Your task to perform on an android device: Show the shopping cart on ebay.com. Search for "razer huntsman" on ebay.com, select the first entry, and add it to the cart. Image 0: 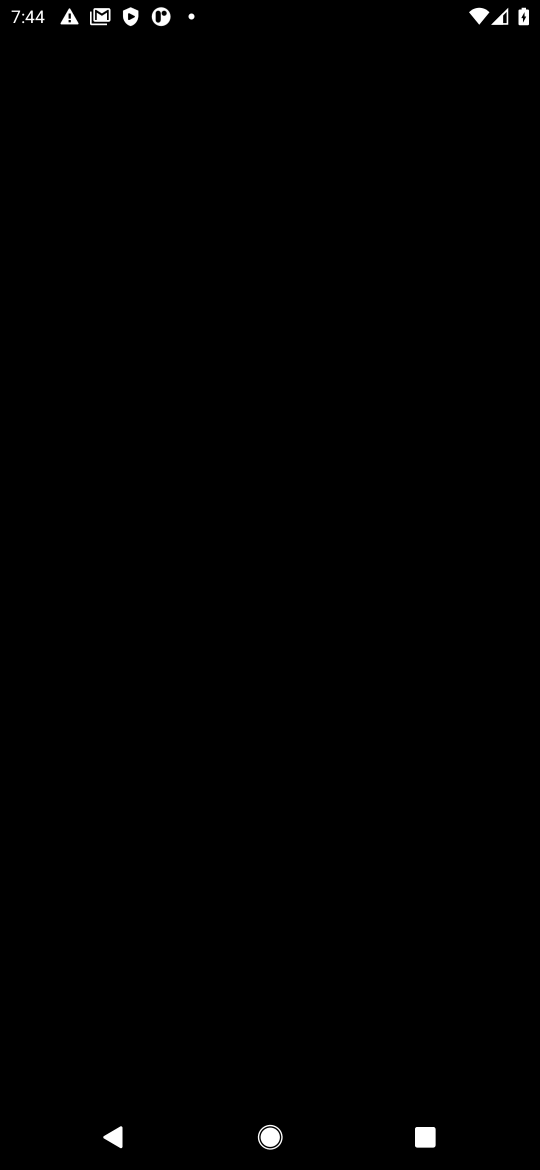
Step 0: press home button
Your task to perform on an android device: Show the shopping cart on ebay.com. Search for "razer huntsman" on ebay.com, select the first entry, and add it to the cart. Image 1: 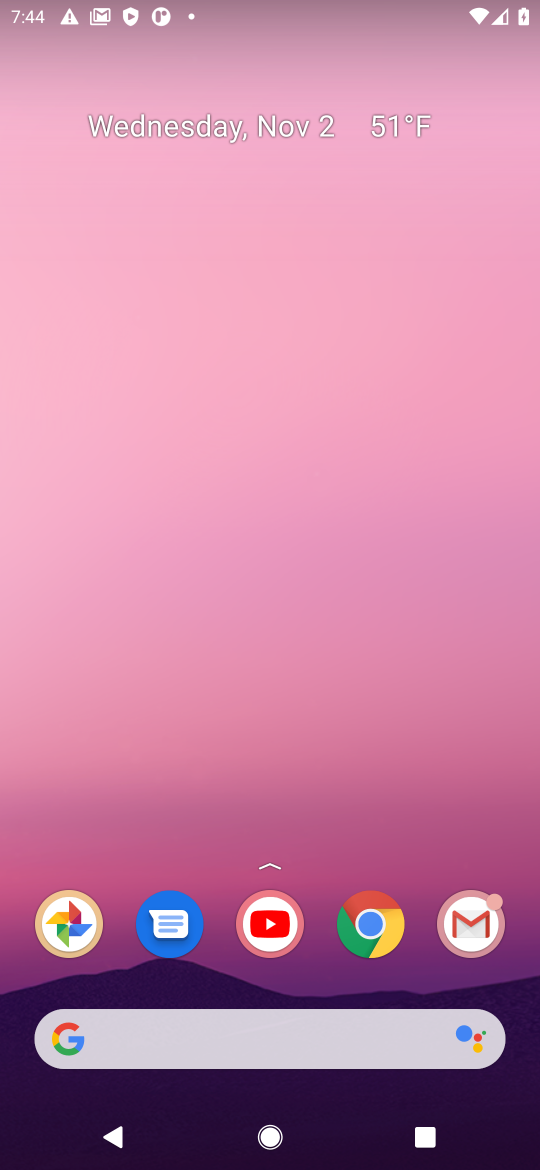
Step 1: click (390, 936)
Your task to perform on an android device: Show the shopping cart on ebay.com. Search for "razer huntsman" on ebay.com, select the first entry, and add it to the cart. Image 2: 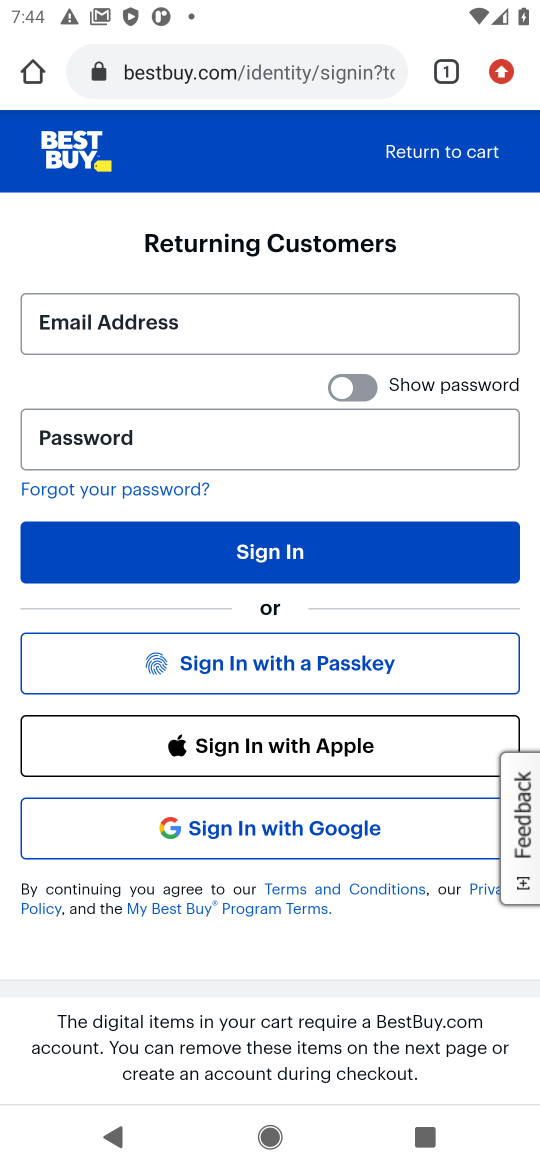
Step 2: click (124, 75)
Your task to perform on an android device: Show the shopping cart on ebay.com. Search for "razer huntsman" on ebay.com, select the first entry, and add it to the cart. Image 3: 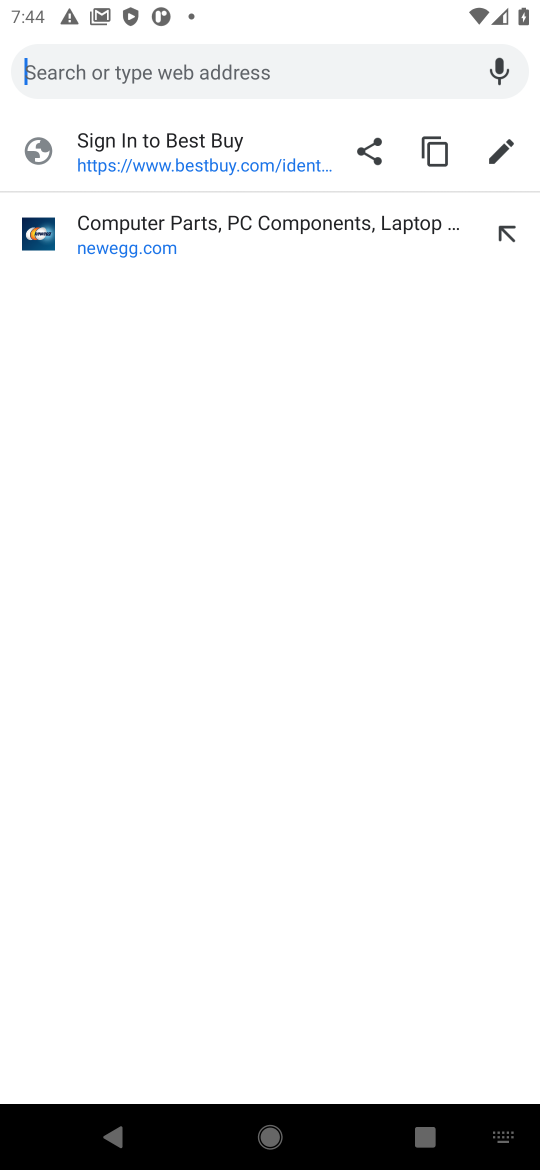
Step 3: type "ebay"
Your task to perform on an android device: Show the shopping cart on ebay.com. Search for "razer huntsman" on ebay.com, select the first entry, and add it to the cart. Image 4: 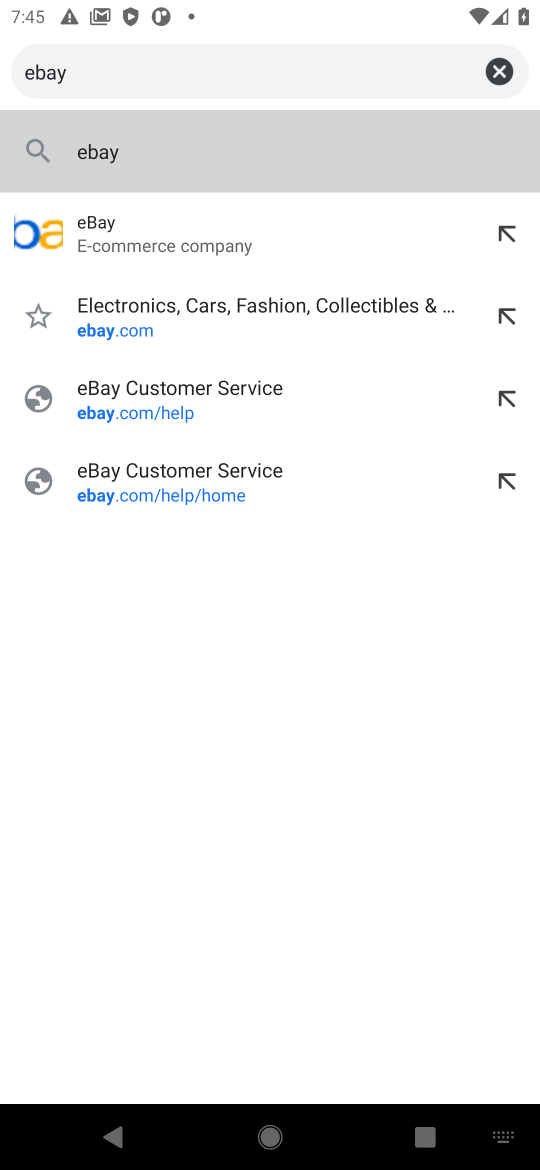
Step 4: type ""
Your task to perform on an android device: Show the shopping cart on ebay.com. Search for "razer huntsman" on ebay.com, select the first entry, and add it to the cart. Image 5: 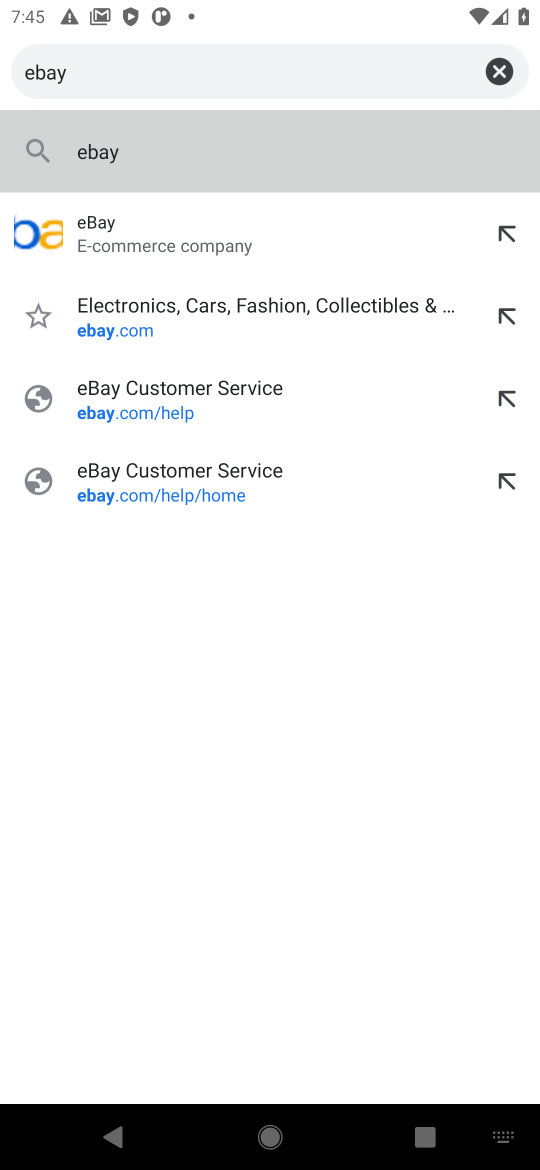
Step 5: click (119, 231)
Your task to perform on an android device: Show the shopping cart on ebay.com. Search for "razer huntsman" on ebay.com, select the first entry, and add it to the cart. Image 6: 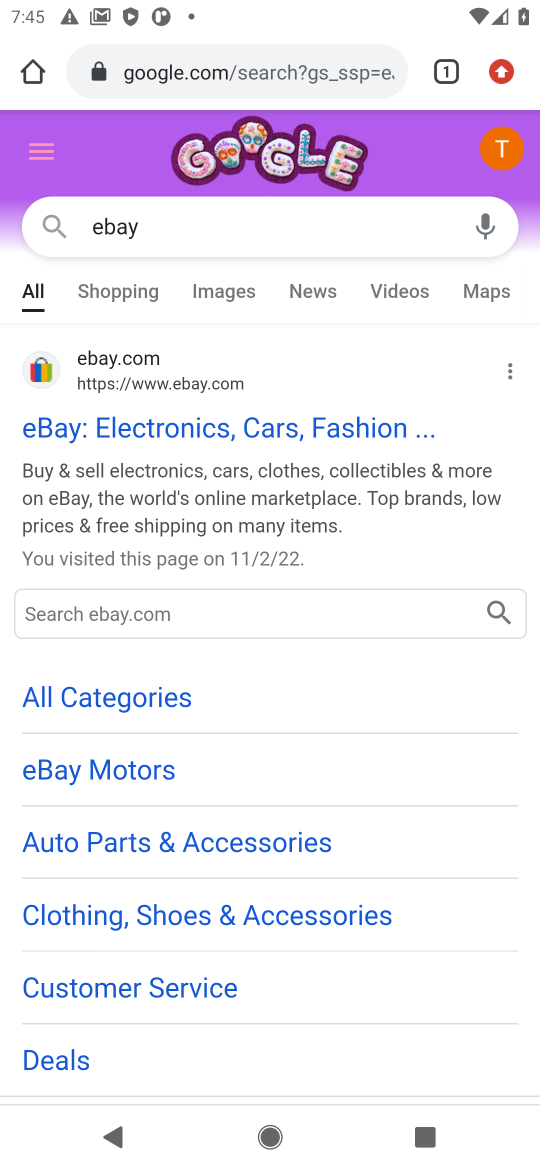
Step 6: click (201, 432)
Your task to perform on an android device: Show the shopping cart on ebay.com. Search for "razer huntsman" on ebay.com, select the first entry, and add it to the cart. Image 7: 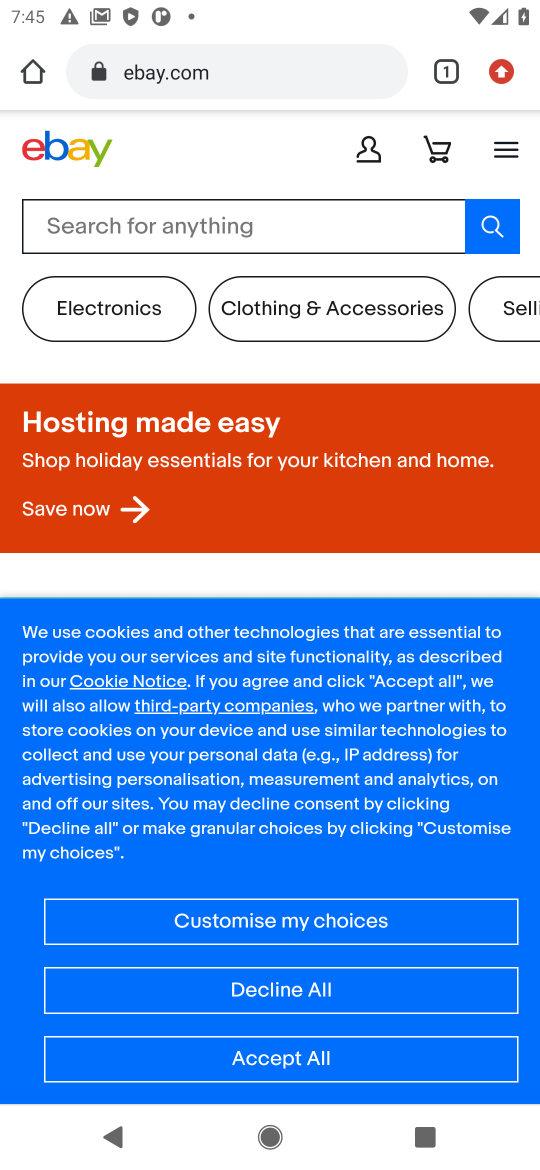
Step 7: click (337, 227)
Your task to perform on an android device: Show the shopping cart on ebay.com. Search for "razer huntsman" on ebay.com, select the first entry, and add it to the cart. Image 8: 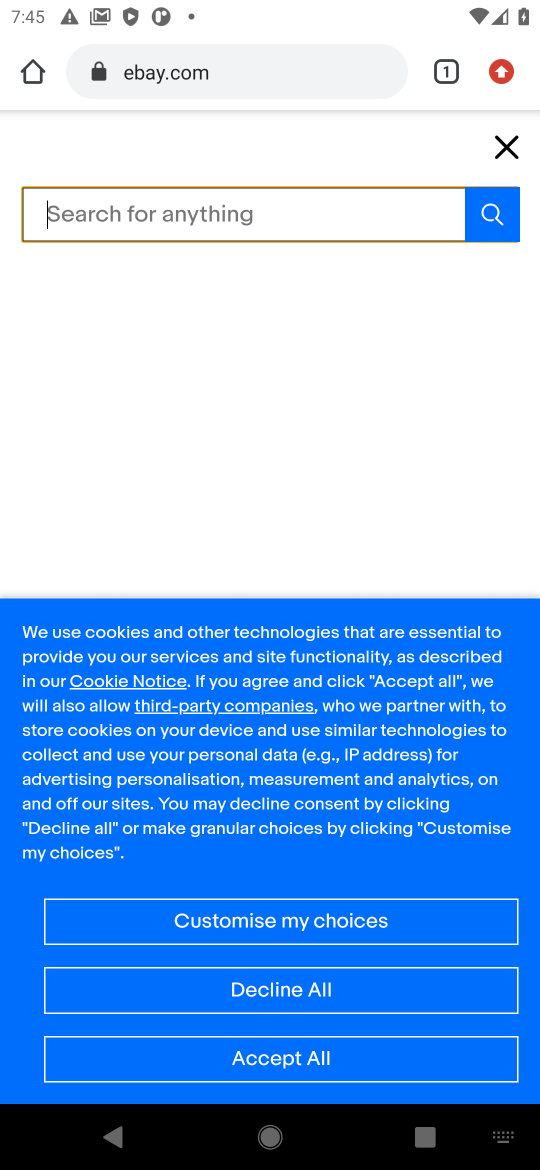
Step 8: click (279, 1054)
Your task to perform on an android device: Show the shopping cart on ebay.com. Search for "razer huntsman" on ebay.com, select the first entry, and add it to the cart. Image 9: 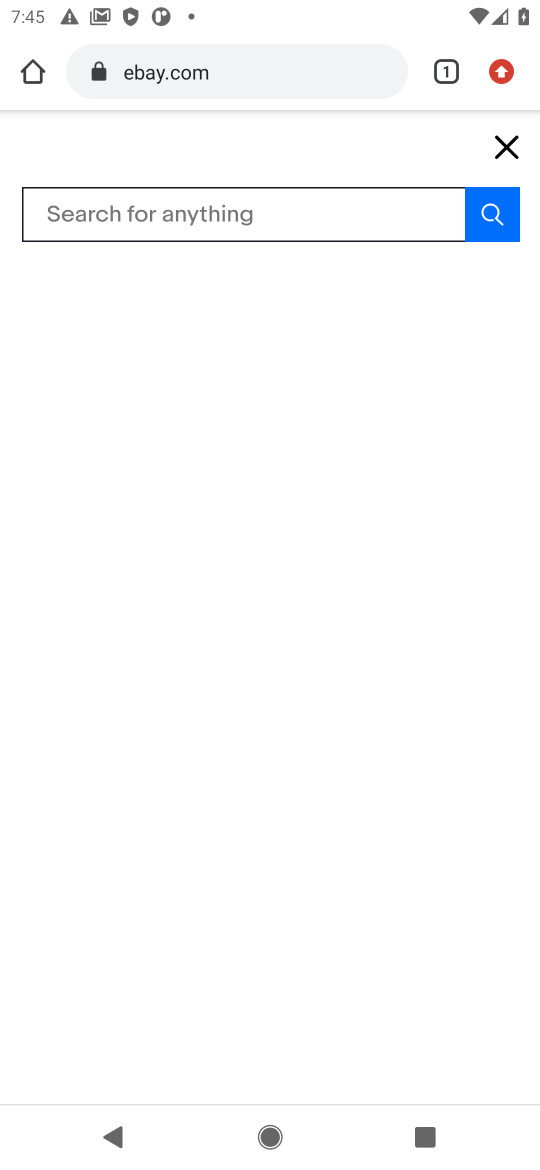
Step 9: click (355, 231)
Your task to perform on an android device: Show the shopping cart on ebay.com. Search for "razer huntsman" on ebay.com, select the first entry, and add it to the cart. Image 10: 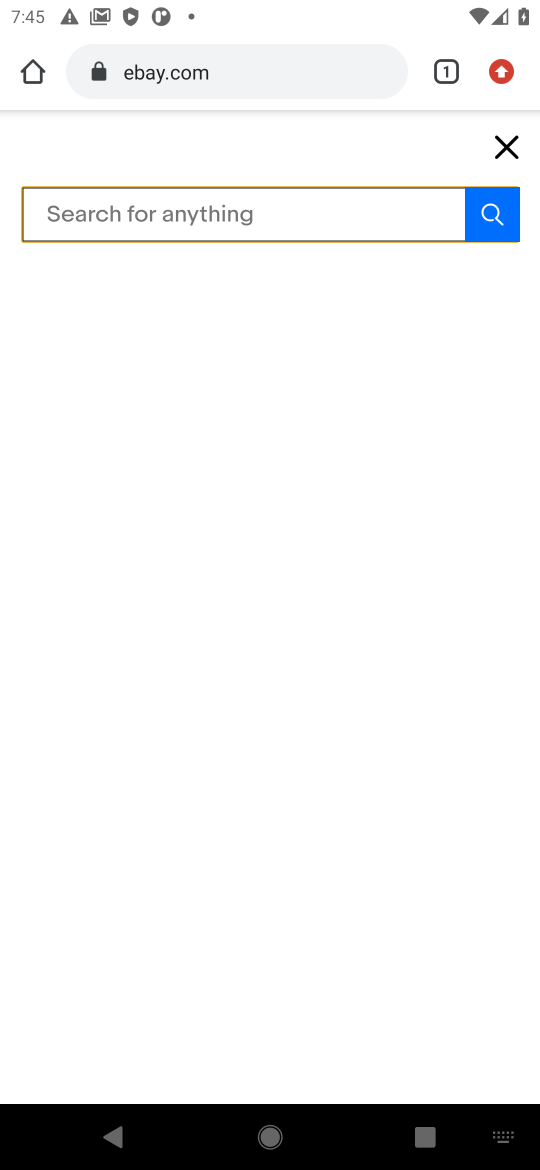
Step 10: type "razer huntsman"
Your task to perform on an android device: Show the shopping cart on ebay.com. Search for "razer huntsman" on ebay.com, select the first entry, and add it to the cart. Image 11: 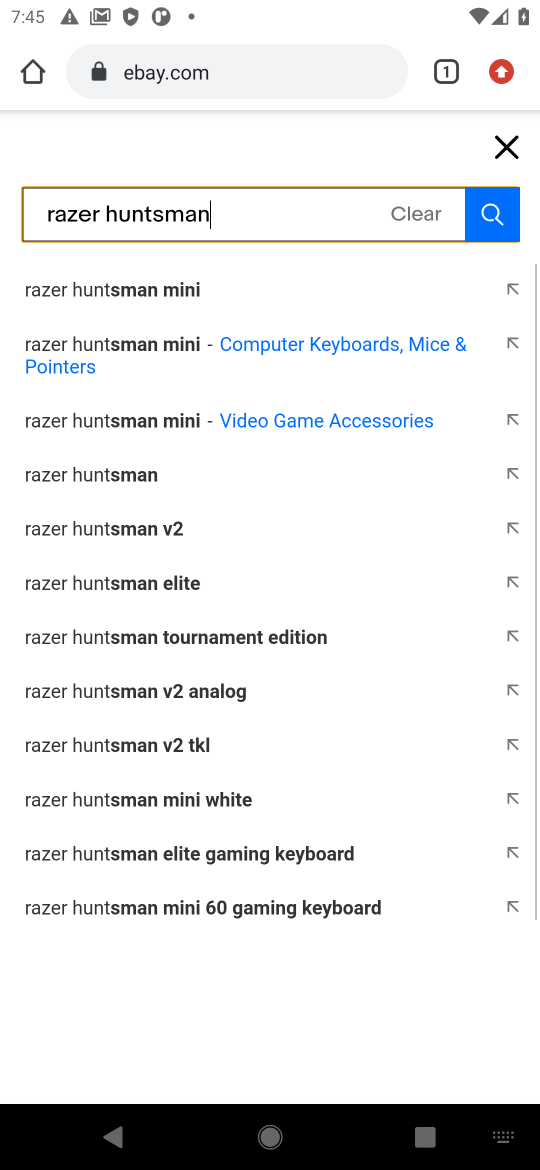
Step 11: type ""
Your task to perform on an android device: Show the shopping cart on ebay.com. Search for "razer huntsman" on ebay.com, select the first entry, and add it to the cart. Image 12: 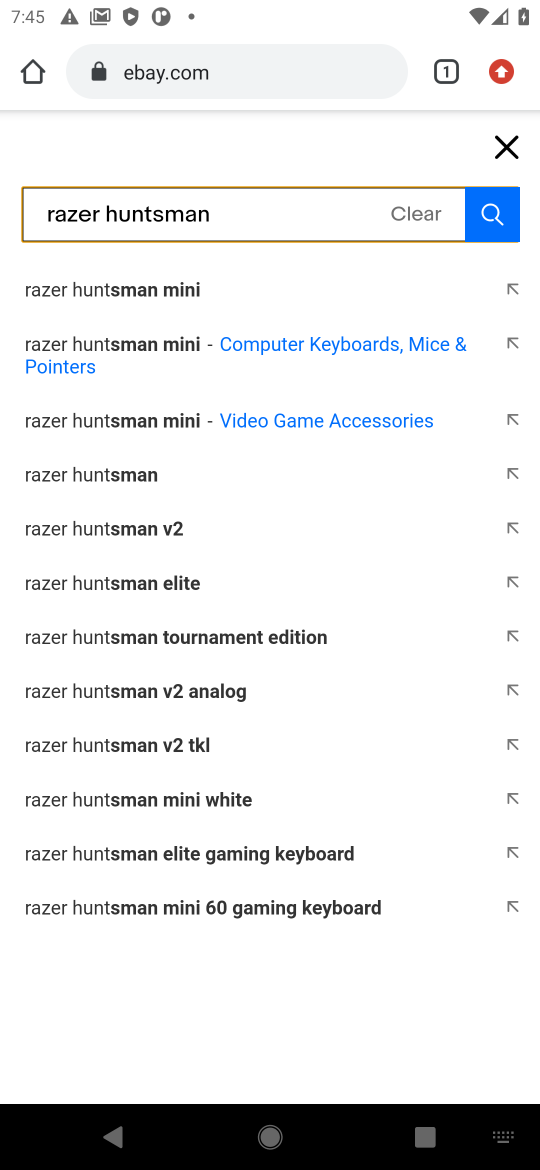
Step 12: click (129, 480)
Your task to perform on an android device: Show the shopping cart on ebay.com. Search for "razer huntsman" on ebay.com, select the first entry, and add it to the cart. Image 13: 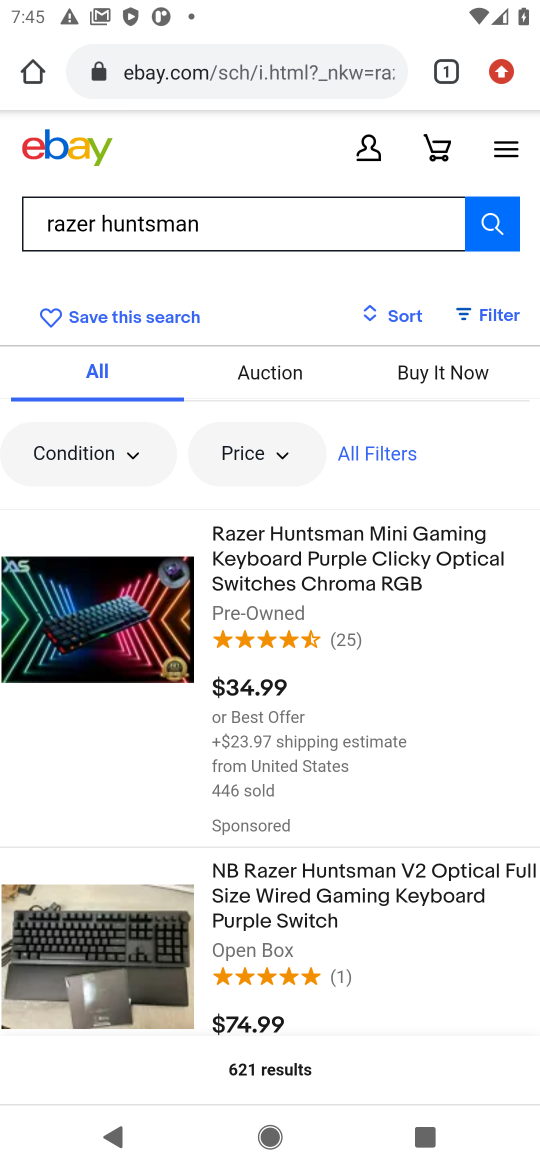
Step 13: click (321, 570)
Your task to perform on an android device: Show the shopping cart on ebay.com. Search for "razer huntsman" on ebay.com, select the first entry, and add it to the cart. Image 14: 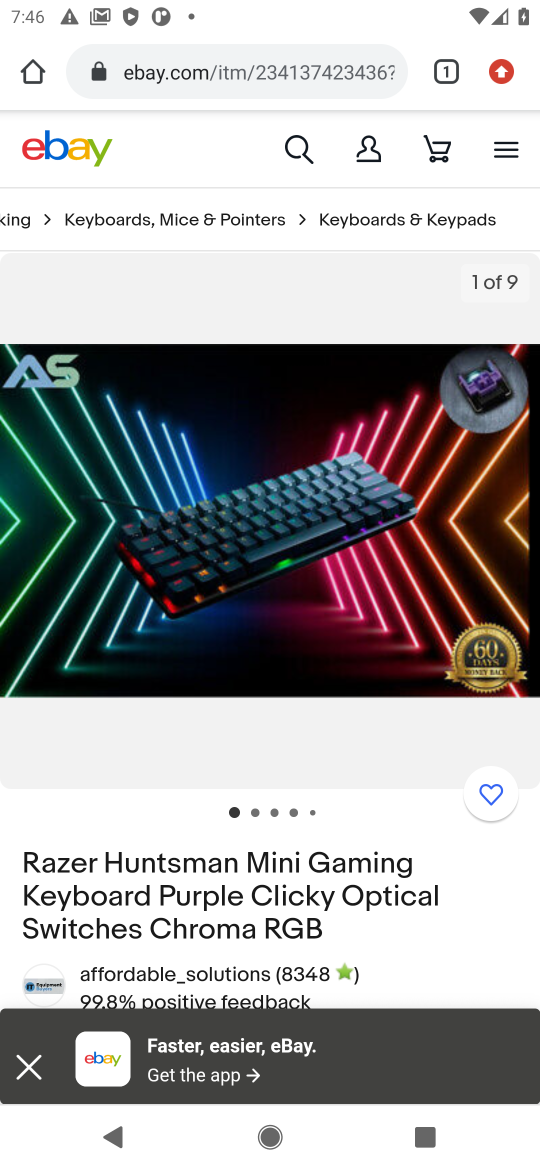
Step 14: click (20, 1073)
Your task to perform on an android device: Show the shopping cart on ebay.com. Search for "razer huntsman" on ebay.com, select the first entry, and add it to the cart. Image 15: 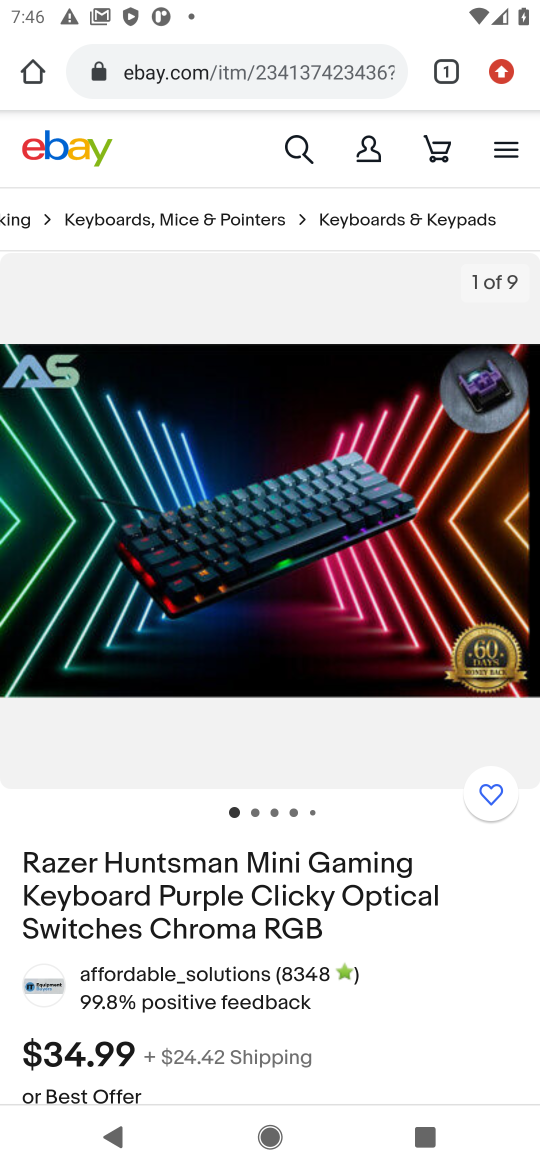
Step 15: drag from (138, 913) to (205, 257)
Your task to perform on an android device: Show the shopping cart on ebay.com. Search for "razer huntsman" on ebay.com, select the first entry, and add it to the cart. Image 16: 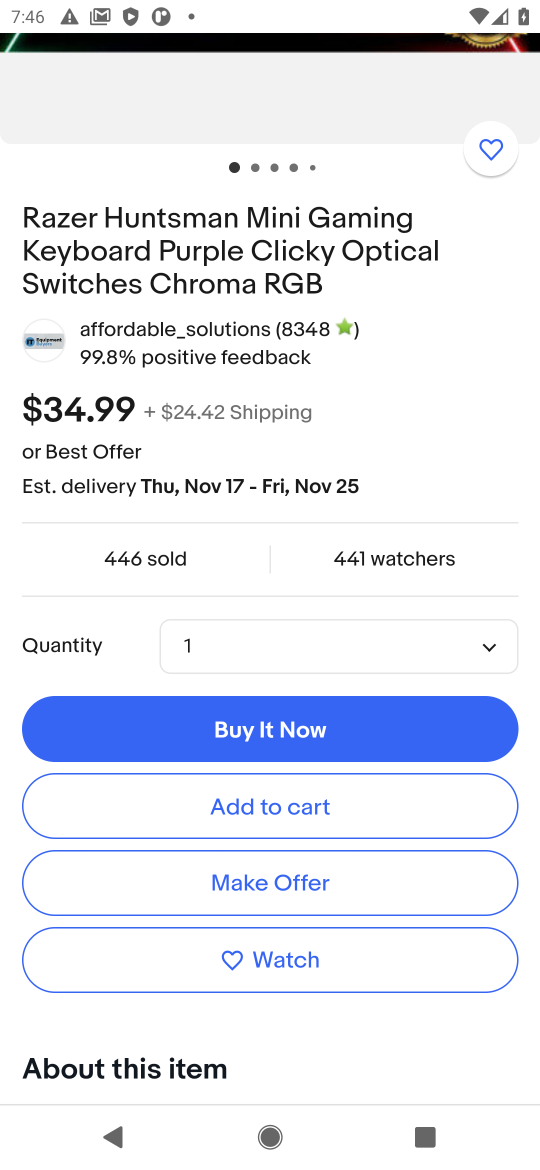
Step 16: click (230, 796)
Your task to perform on an android device: Show the shopping cart on ebay.com. Search for "razer huntsman" on ebay.com, select the first entry, and add it to the cart. Image 17: 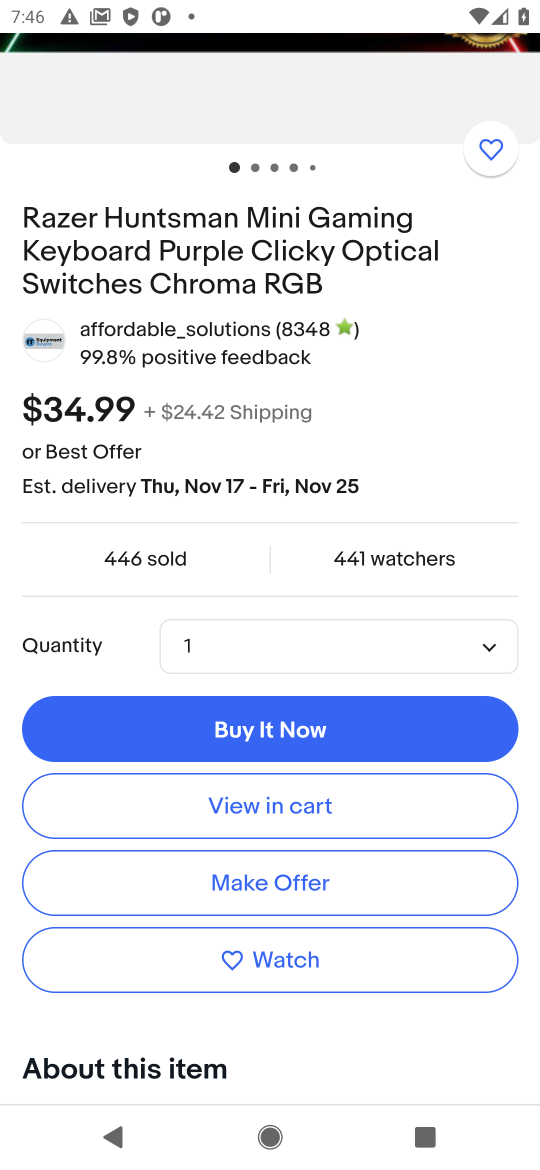
Step 17: click (236, 812)
Your task to perform on an android device: Show the shopping cart on ebay.com. Search for "razer huntsman" on ebay.com, select the first entry, and add it to the cart. Image 18: 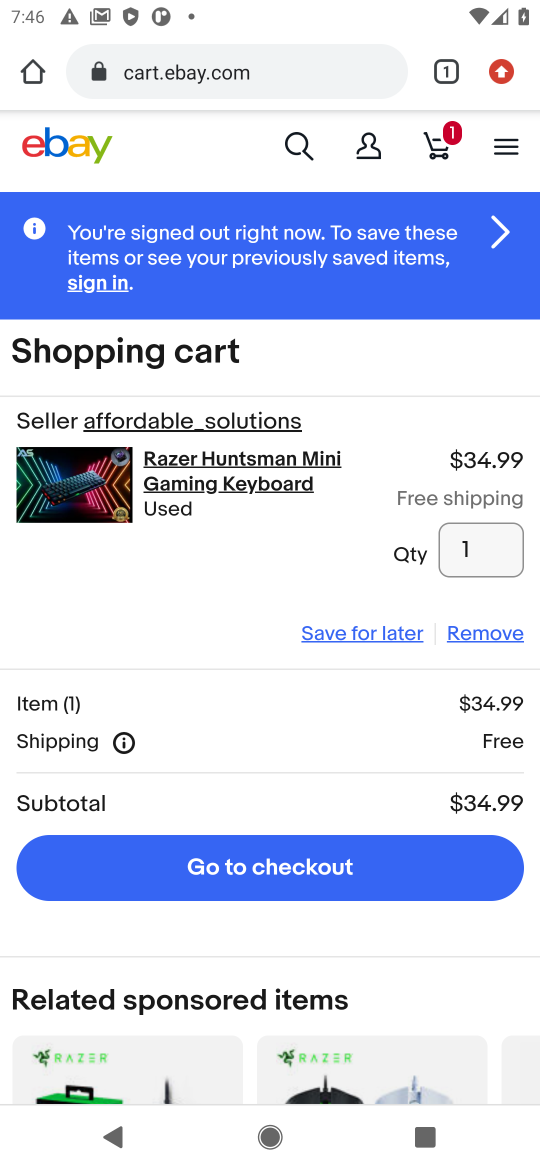
Step 18: task complete